Your task to perform on an android device: Go to location settings Image 0: 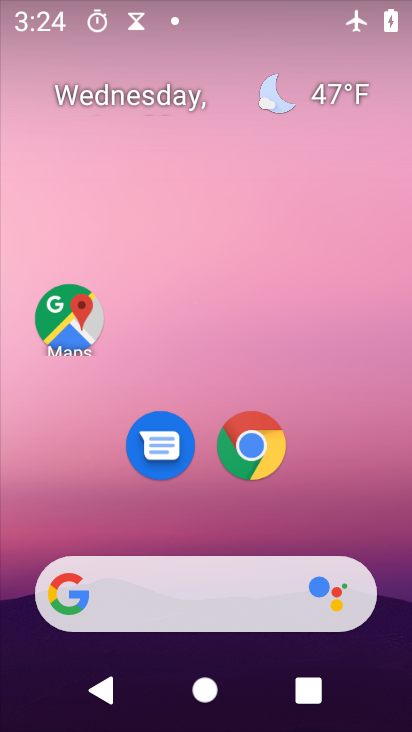
Step 0: drag from (371, 498) to (351, 23)
Your task to perform on an android device: Go to location settings Image 1: 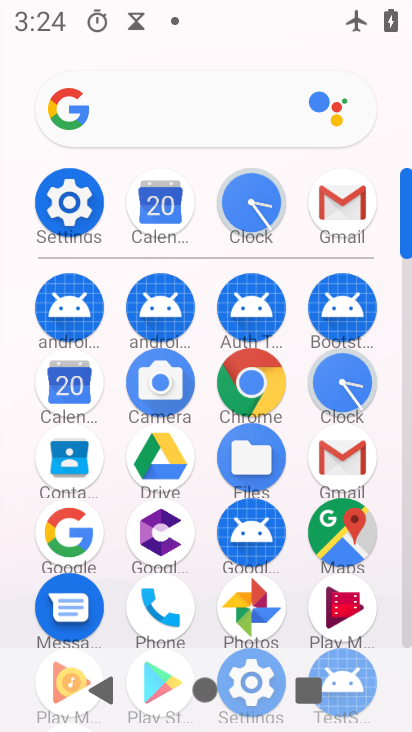
Step 1: click (78, 198)
Your task to perform on an android device: Go to location settings Image 2: 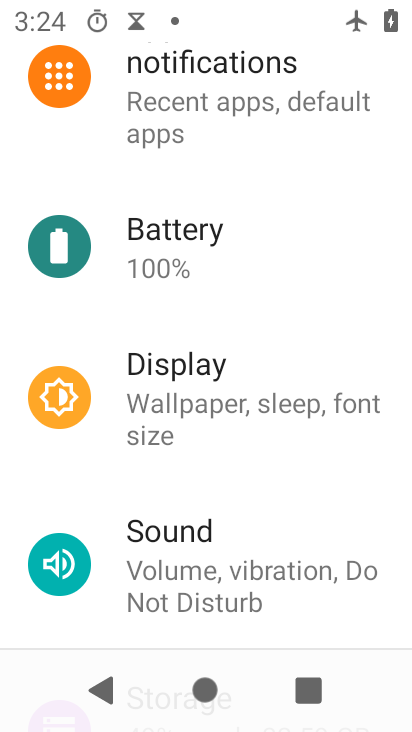
Step 2: drag from (383, 538) to (365, 121)
Your task to perform on an android device: Go to location settings Image 3: 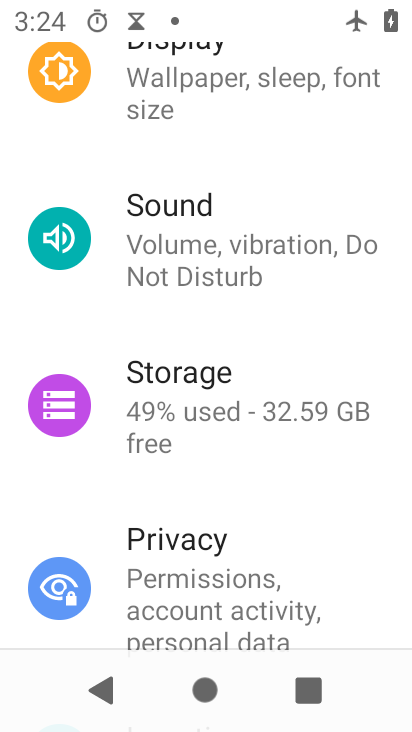
Step 3: drag from (344, 565) to (329, 237)
Your task to perform on an android device: Go to location settings Image 4: 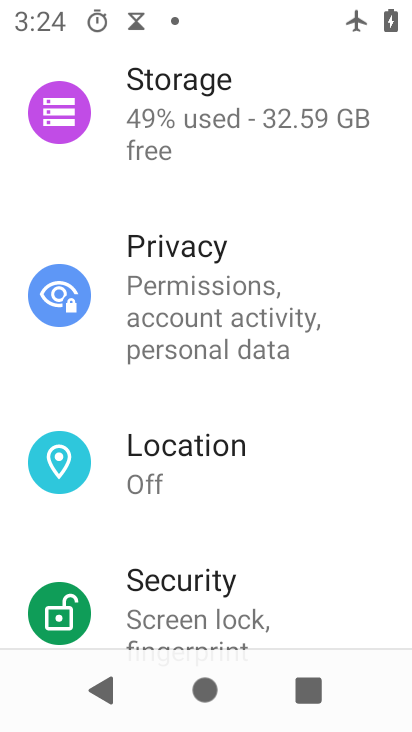
Step 4: click (139, 457)
Your task to perform on an android device: Go to location settings Image 5: 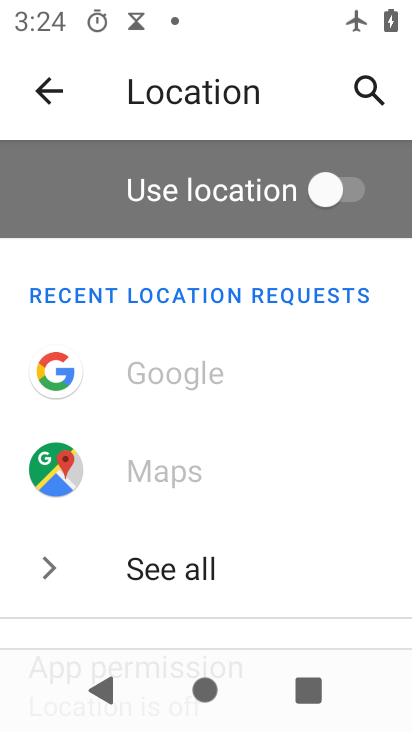
Step 5: task complete